Your task to perform on an android device: Open Yahoo.com Image 0: 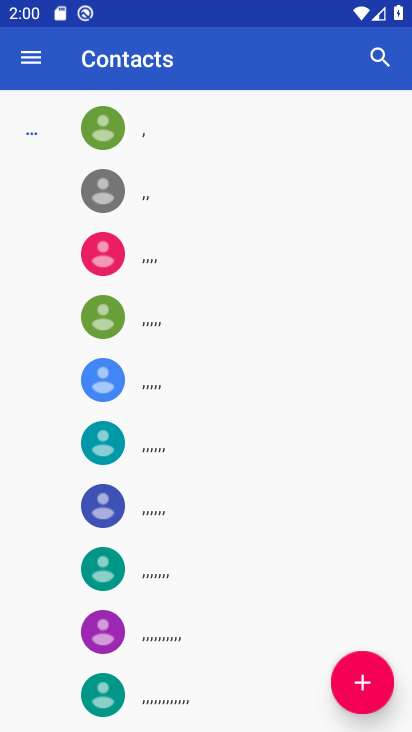
Step 0: press home button
Your task to perform on an android device: Open Yahoo.com Image 1: 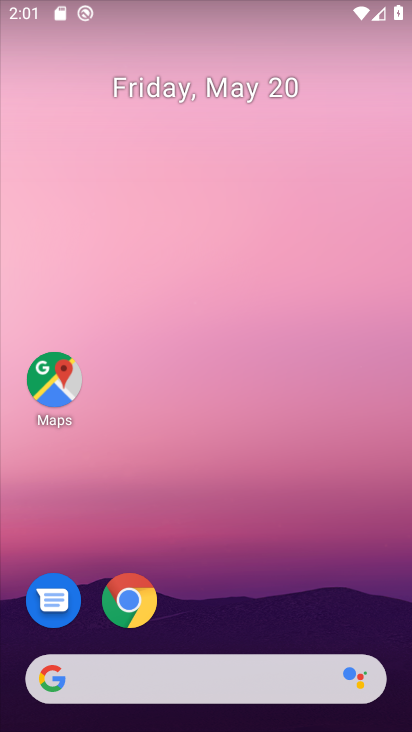
Step 1: click (139, 601)
Your task to perform on an android device: Open Yahoo.com Image 2: 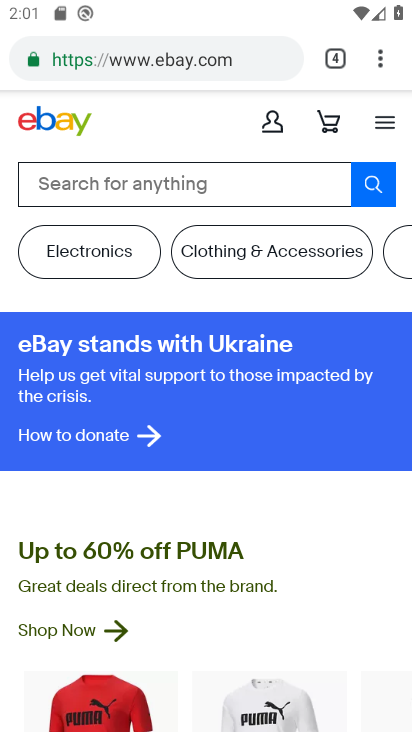
Step 2: click (381, 60)
Your task to perform on an android device: Open Yahoo.com Image 3: 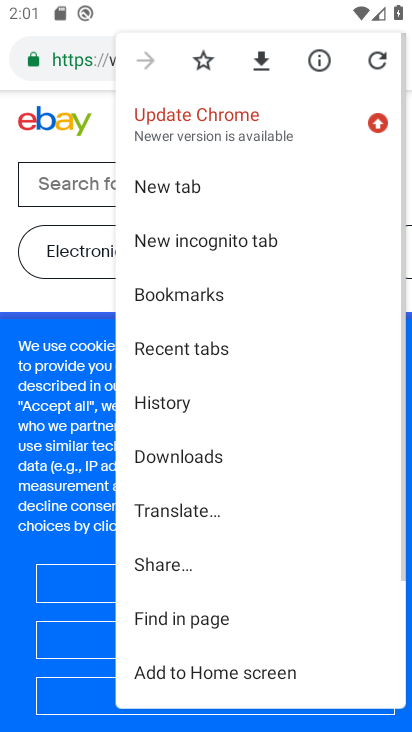
Step 3: click (171, 191)
Your task to perform on an android device: Open Yahoo.com Image 4: 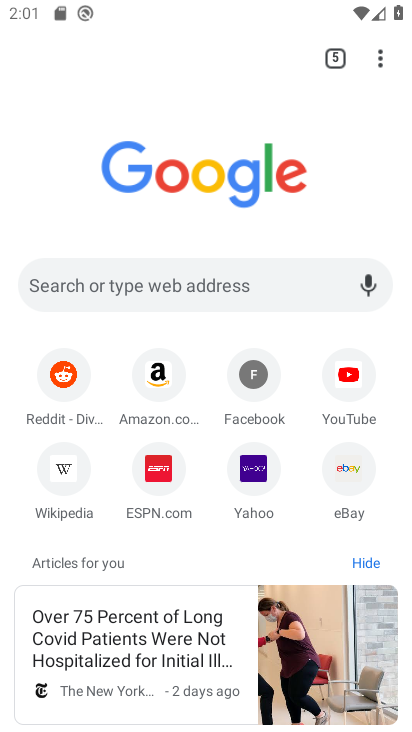
Step 4: click (240, 470)
Your task to perform on an android device: Open Yahoo.com Image 5: 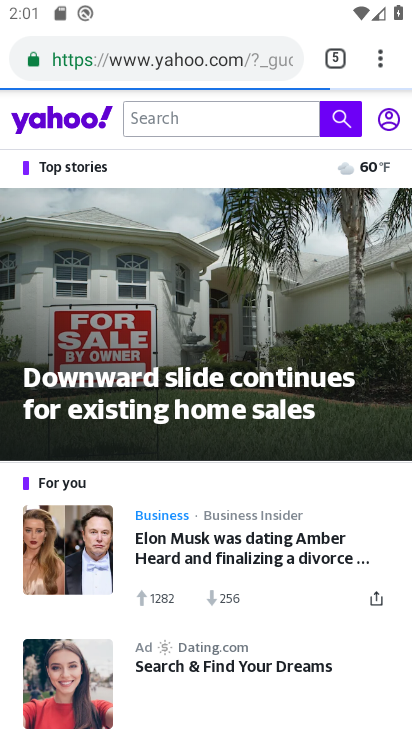
Step 5: task complete